Your task to perform on an android device: Is it going to rain this weekend? Image 0: 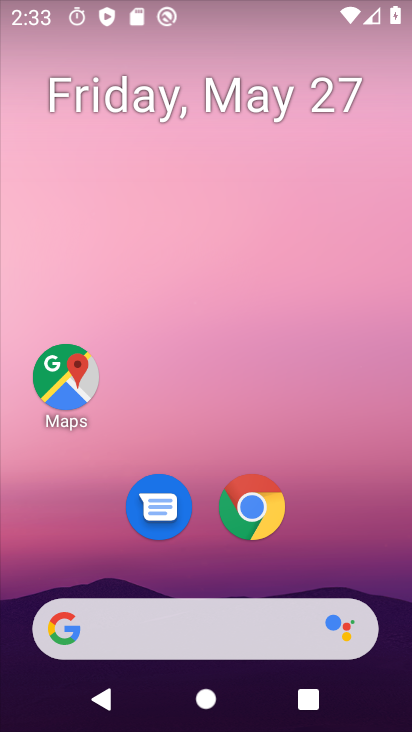
Step 0: click (259, 253)
Your task to perform on an android device: Is it going to rain this weekend? Image 1: 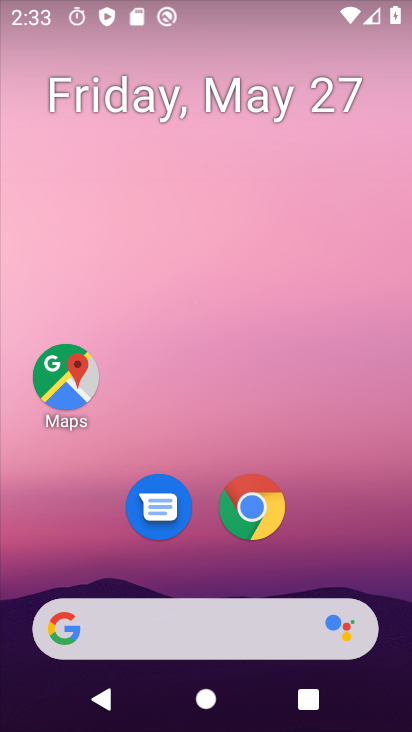
Step 1: drag from (222, 595) to (218, 44)
Your task to perform on an android device: Is it going to rain this weekend? Image 2: 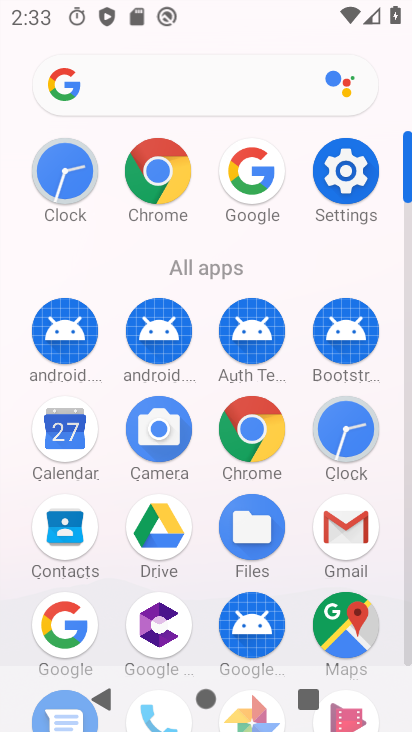
Step 2: click (254, 171)
Your task to perform on an android device: Is it going to rain this weekend? Image 3: 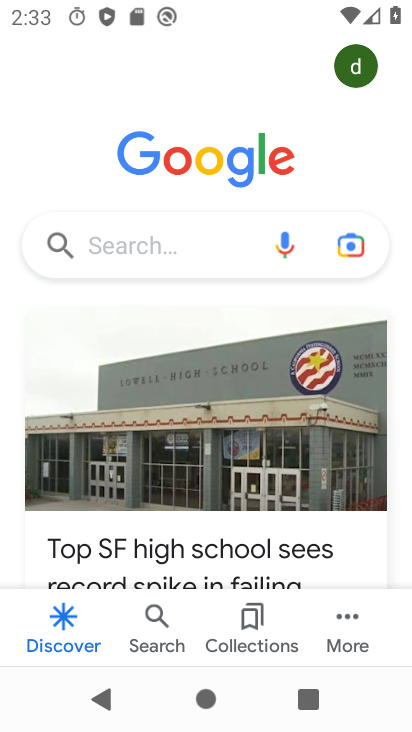
Step 3: click (145, 246)
Your task to perform on an android device: Is it going to rain this weekend? Image 4: 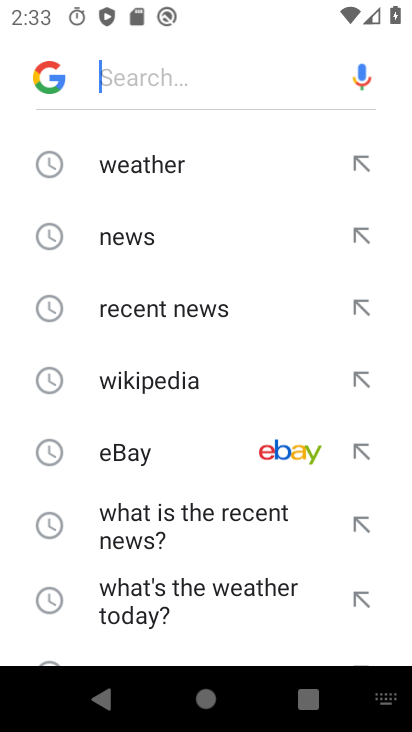
Step 4: drag from (160, 597) to (160, 252)
Your task to perform on an android device: Is it going to rain this weekend? Image 5: 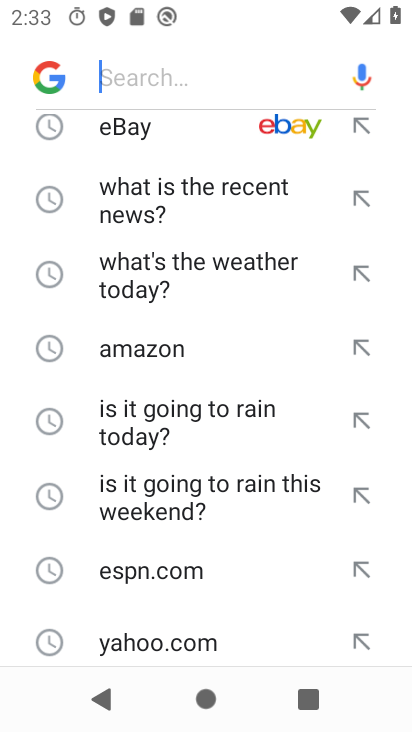
Step 5: click (202, 489)
Your task to perform on an android device: Is it going to rain this weekend? Image 6: 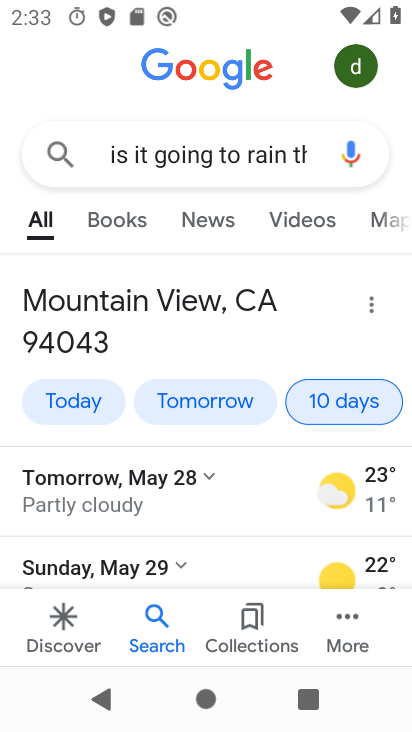
Step 6: drag from (289, 549) to (324, 153)
Your task to perform on an android device: Is it going to rain this weekend? Image 7: 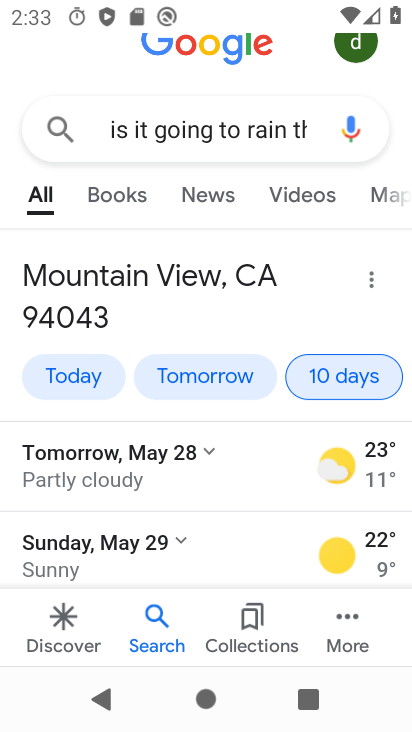
Step 7: drag from (300, 570) to (305, 214)
Your task to perform on an android device: Is it going to rain this weekend? Image 8: 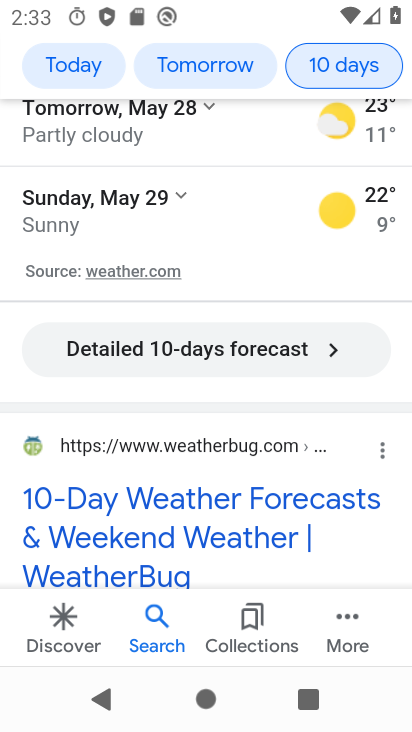
Step 8: click (244, 353)
Your task to perform on an android device: Is it going to rain this weekend? Image 9: 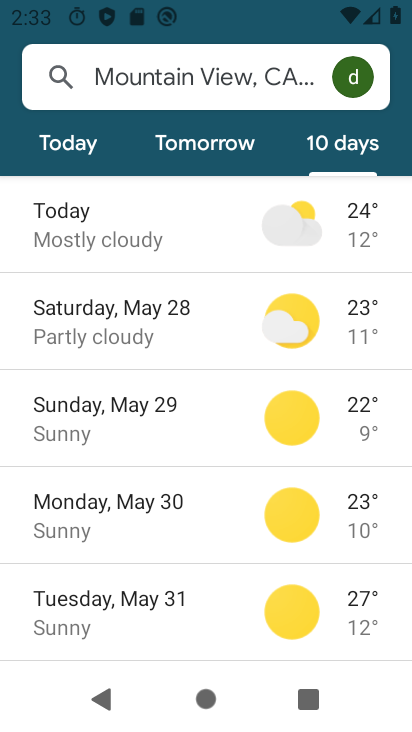
Step 9: task complete